Your task to perform on an android device: clear history in the chrome app Image 0: 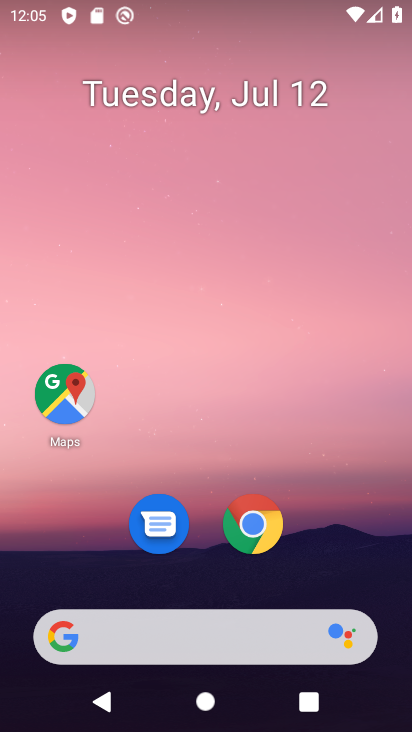
Step 0: click (263, 514)
Your task to perform on an android device: clear history in the chrome app Image 1: 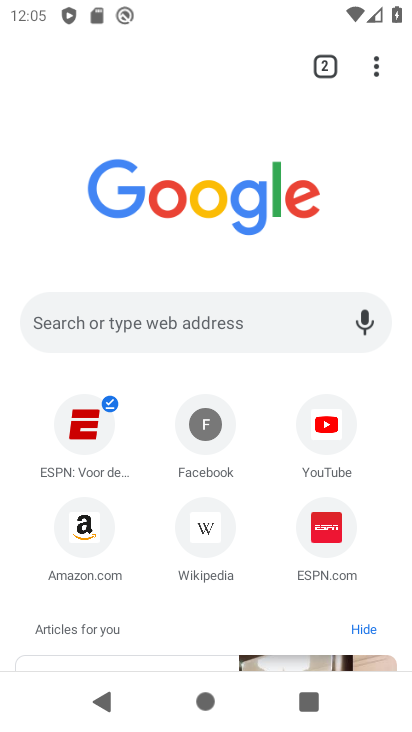
Step 1: click (376, 61)
Your task to perform on an android device: clear history in the chrome app Image 2: 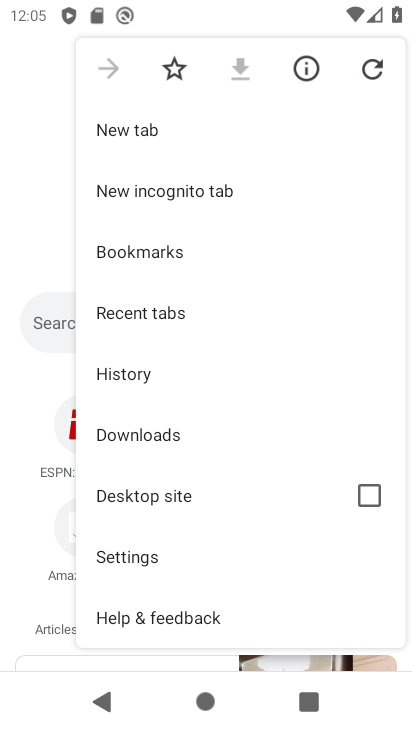
Step 2: click (140, 365)
Your task to perform on an android device: clear history in the chrome app Image 3: 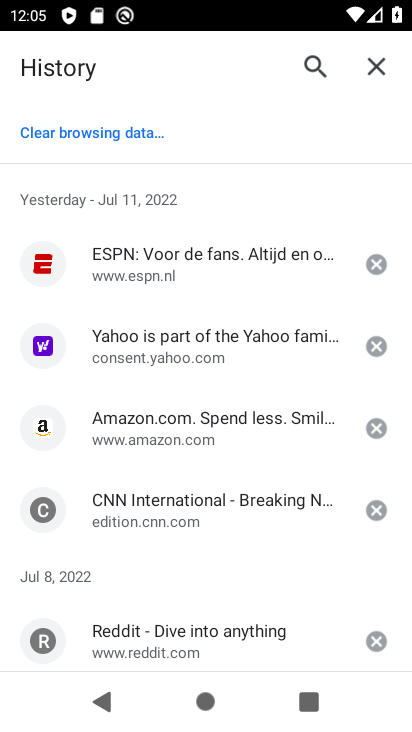
Step 3: click (118, 130)
Your task to perform on an android device: clear history in the chrome app Image 4: 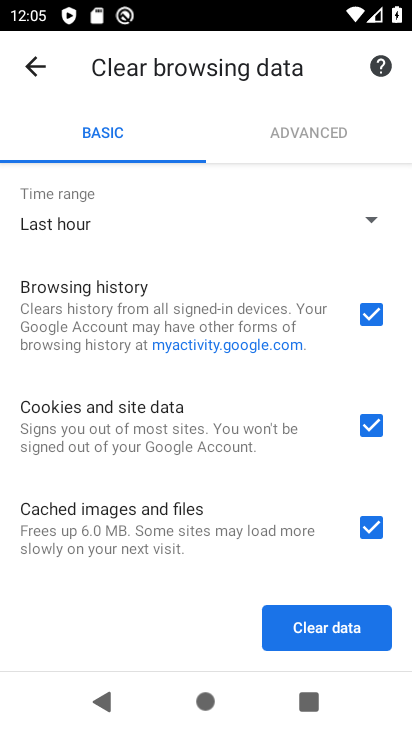
Step 4: click (344, 628)
Your task to perform on an android device: clear history in the chrome app Image 5: 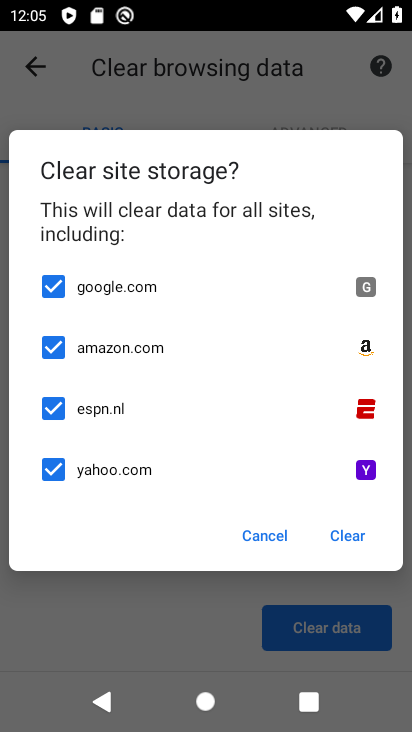
Step 5: click (351, 531)
Your task to perform on an android device: clear history in the chrome app Image 6: 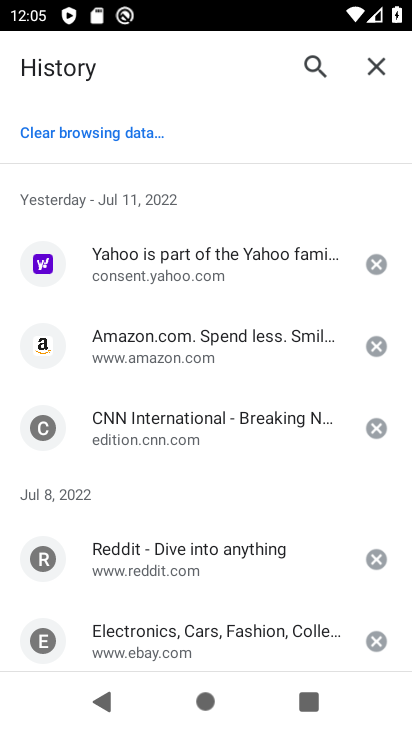
Step 6: task complete